Your task to perform on an android device: turn on notifications settings in the gmail app Image 0: 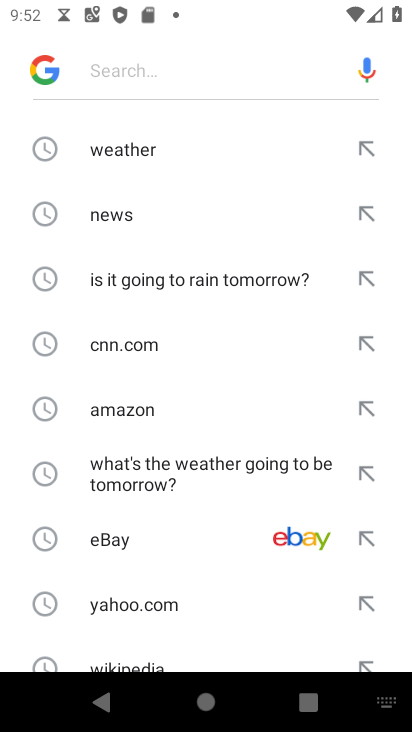
Step 0: press home button
Your task to perform on an android device: turn on notifications settings in the gmail app Image 1: 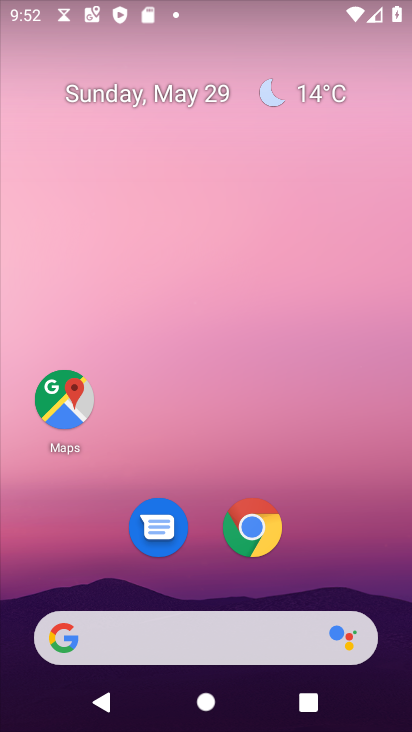
Step 1: drag from (207, 646) to (305, 118)
Your task to perform on an android device: turn on notifications settings in the gmail app Image 2: 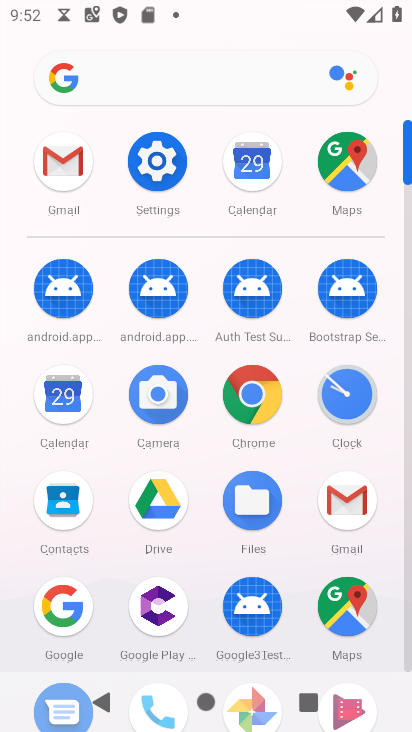
Step 2: click (54, 159)
Your task to perform on an android device: turn on notifications settings in the gmail app Image 3: 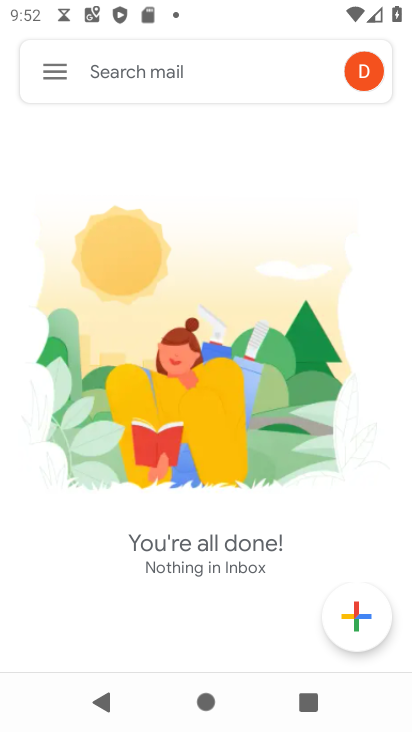
Step 3: click (52, 66)
Your task to perform on an android device: turn on notifications settings in the gmail app Image 4: 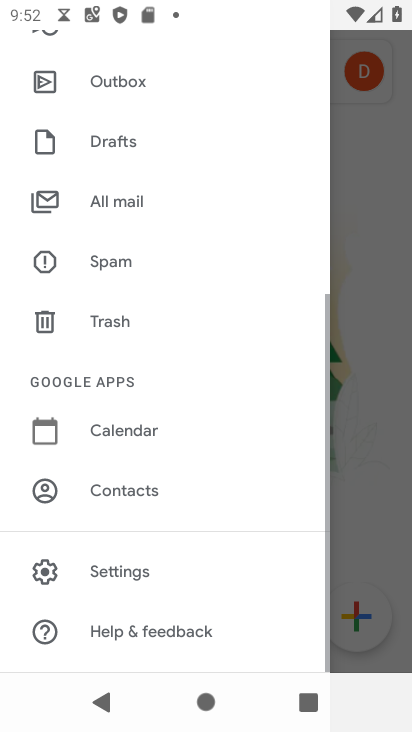
Step 4: click (138, 565)
Your task to perform on an android device: turn on notifications settings in the gmail app Image 5: 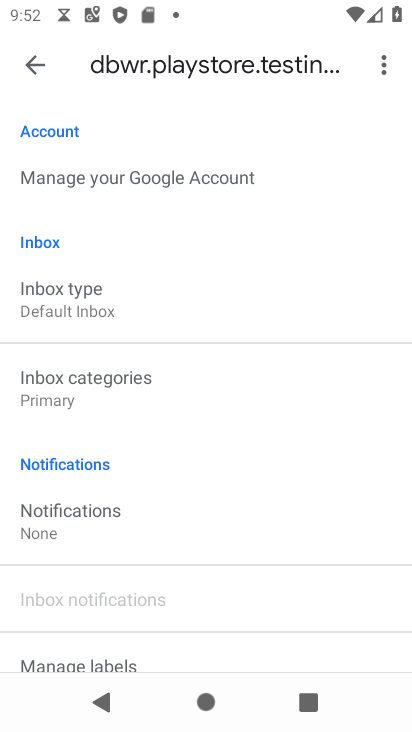
Step 5: click (68, 528)
Your task to perform on an android device: turn on notifications settings in the gmail app Image 6: 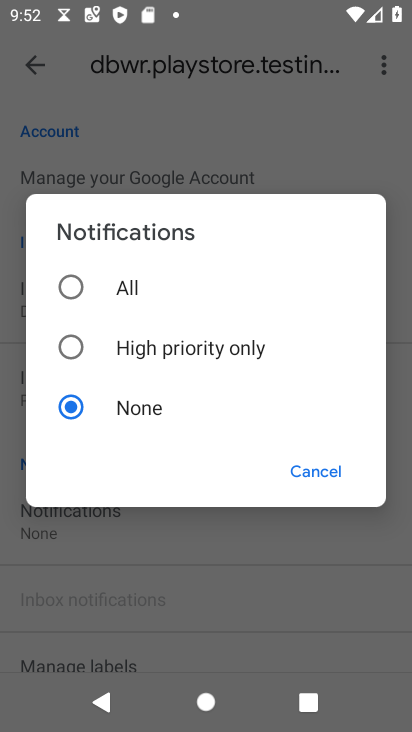
Step 6: click (71, 273)
Your task to perform on an android device: turn on notifications settings in the gmail app Image 7: 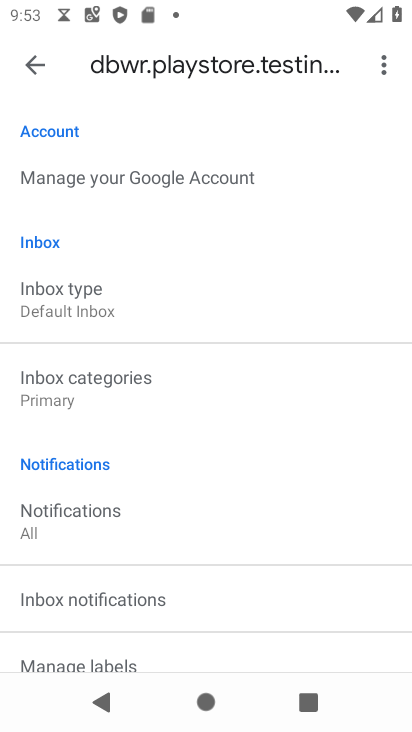
Step 7: task complete